Your task to perform on an android device: toggle airplane mode Image 0: 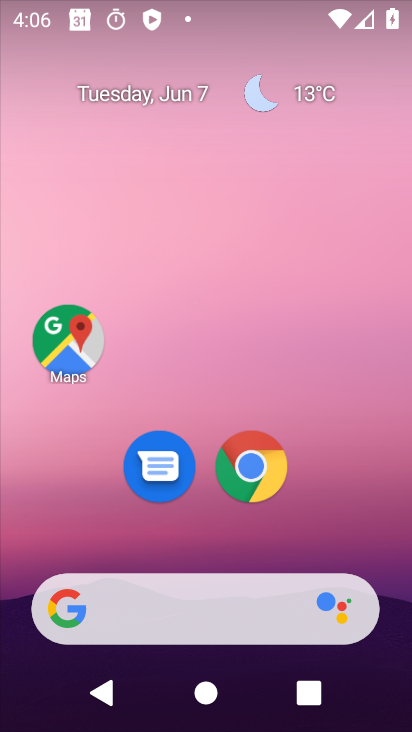
Step 0: drag from (398, 544) to (285, 155)
Your task to perform on an android device: toggle airplane mode Image 1: 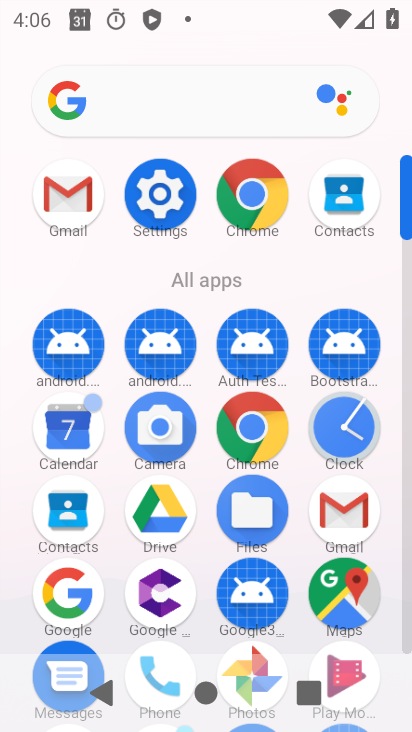
Step 1: click (176, 211)
Your task to perform on an android device: toggle airplane mode Image 2: 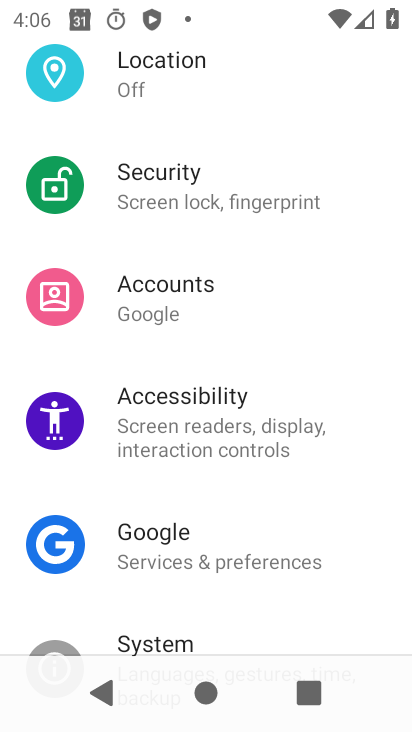
Step 2: drag from (211, 125) to (269, 581)
Your task to perform on an android device: toggle airplane mode Image 3: 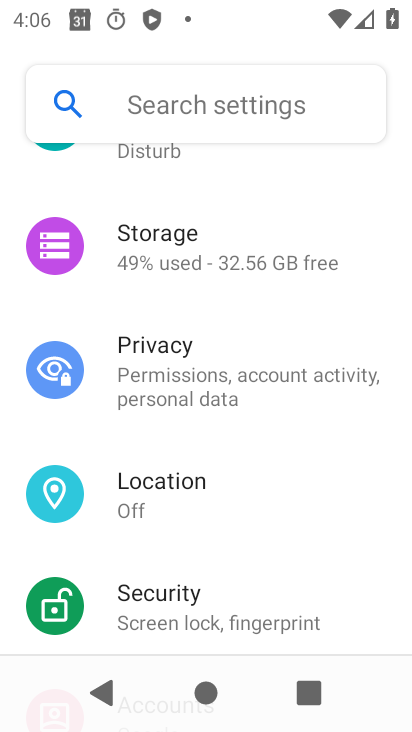
Step 3: drag from (197, 195) to (251, 540)
Your task to perform on an android device: toggle airplane mode Image 4: 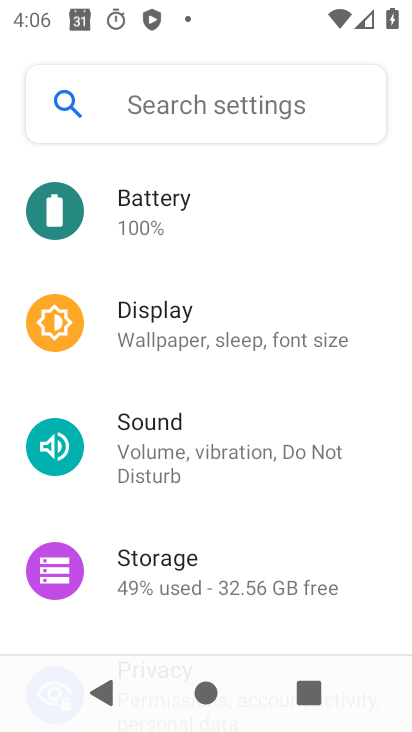
Step 4: drag from (216, 244) to (259, 605)
Your task to perform on an android device: toggle airplane mode Image 5: 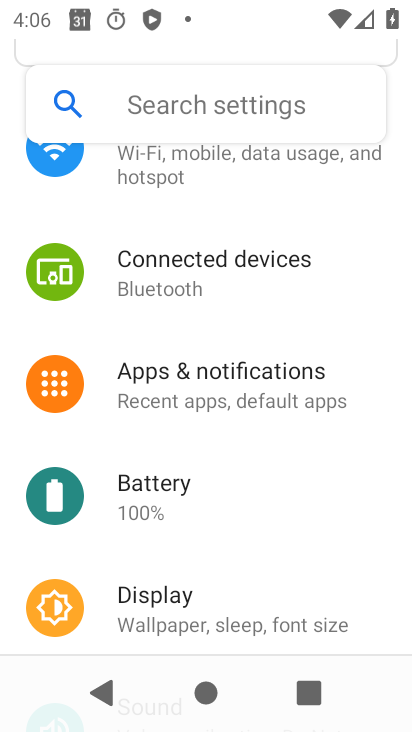
Step 5: click (209, 195)
Your task to perform on an android device: toggle airplane mode Image 6: 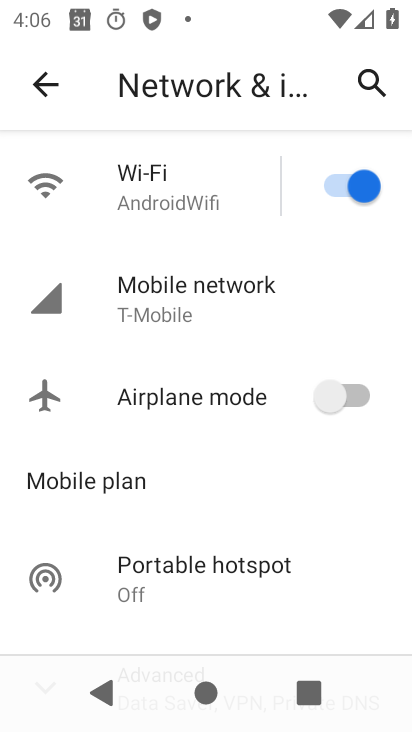
Step 6: click (338, 408)
Your task to perform on an android device: toggle airplane mode Image 7: 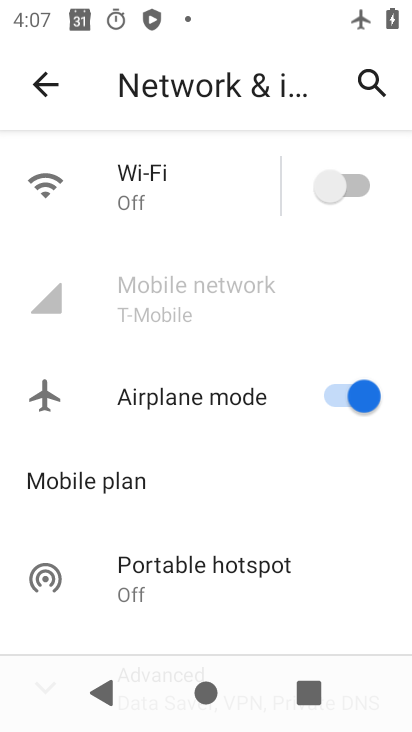
Step 7: task complete